Your task to perform on an android device: set the stopwatch Image 0: 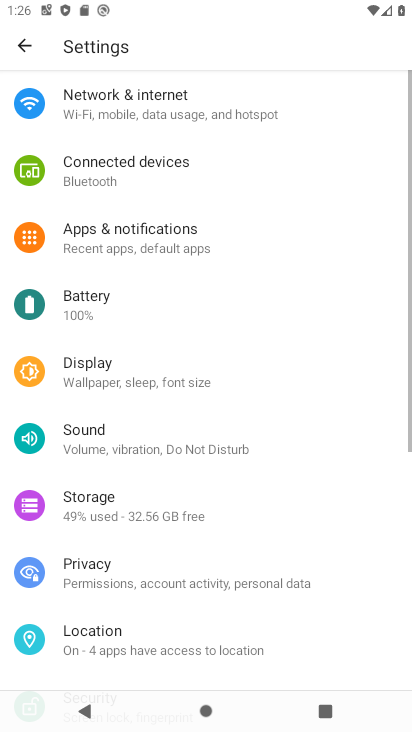
Step 0: press home button
Your task to perform on an android device: set the stopwatch Image 1: 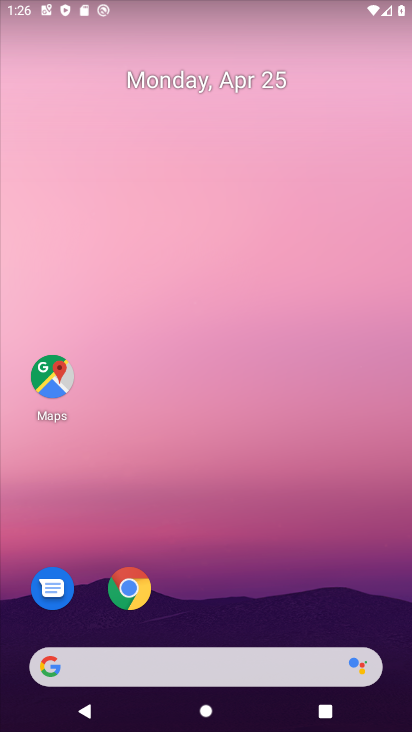
Step 1: drag from (233, 545) to (247, 151)
Your task to perform on an android device: set the stopwatch Image 2: 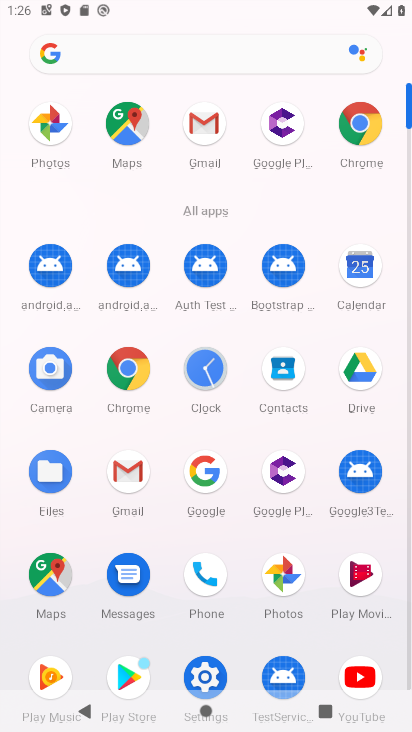
Step 2: click (202, 377)
Your task to perform on an android device: set the stopwatch Image 3: 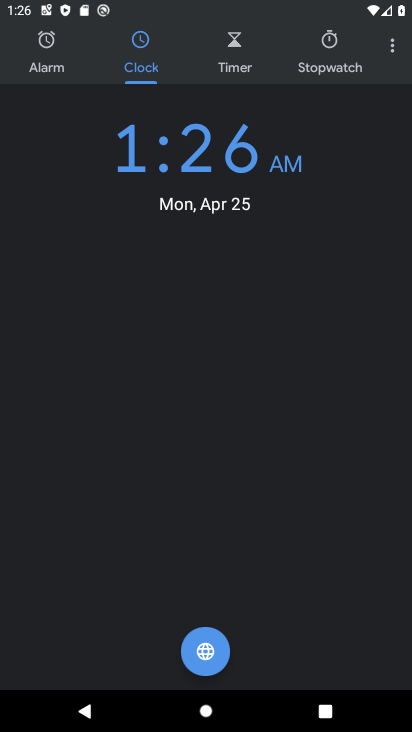
Step 3: click (339, 57)
Your task to perform on an android device: set the stopwatch Image 4: 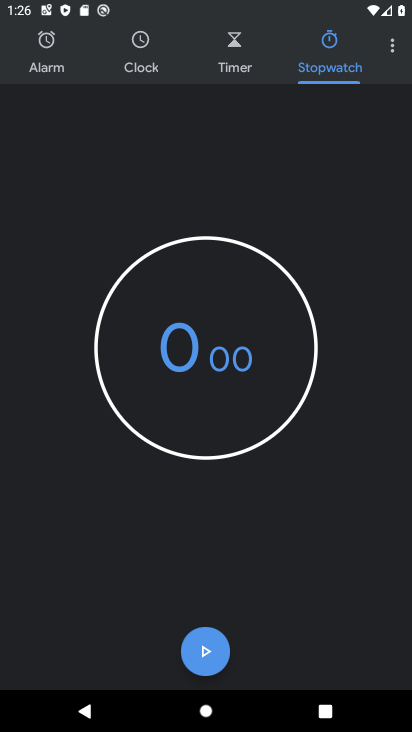
Step 4: click (205, 644)
Your task to perform on an android device: set the stopwatch Image 5: 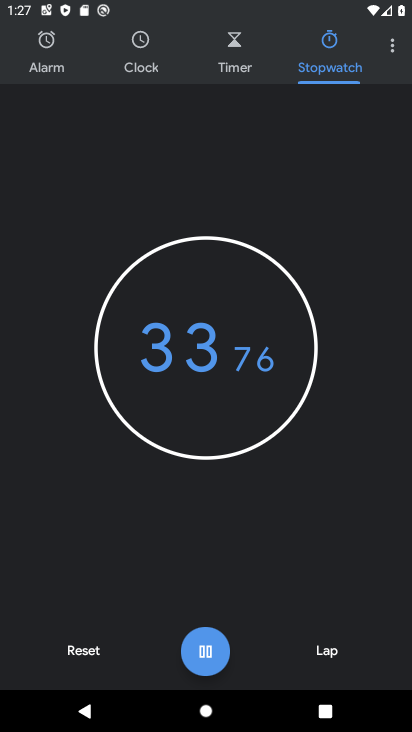
Step 5: task complete